Your task to perform on an android device: see sites visited before in the chrome app Image 0: 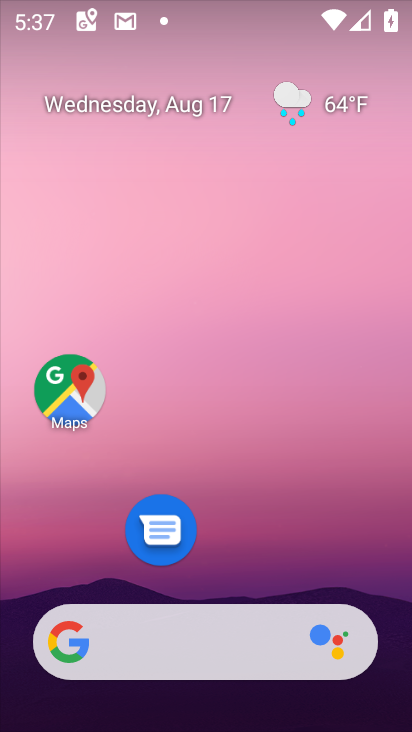
Step 0: drag from (226, 540) to (263, 123)
Your task to perform on an android device: see sites visited before in the chrome app Image 1: 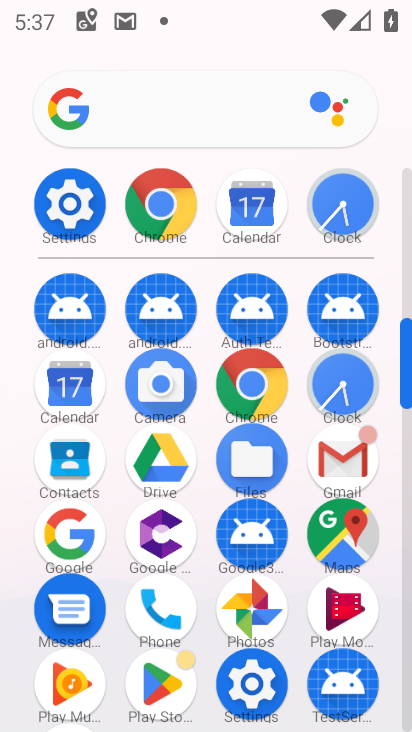
Step 1: click (160, 201)
Your task to perform on an android device: see sites visited before in the chrome app Image 2: 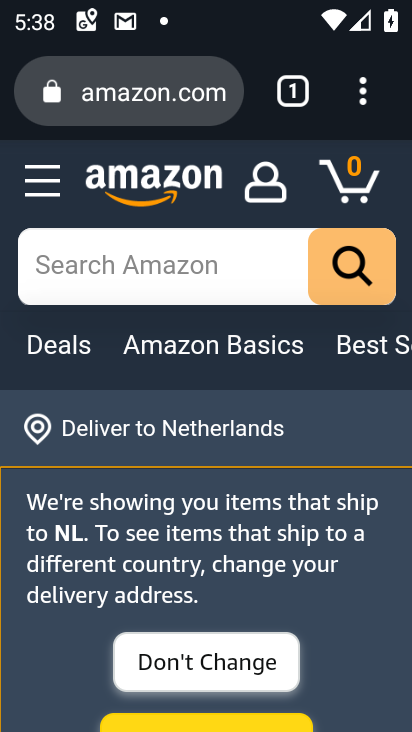
Step 2: click (365, 90)
Your task to perform on an android device: see sites visited before in the chrome app Image 3: 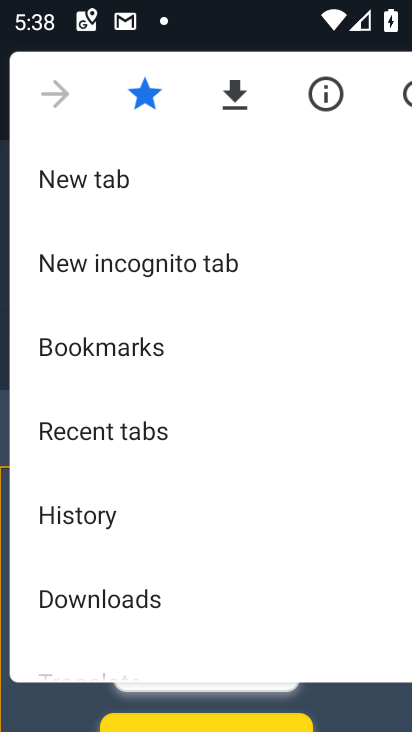
Step 3: click (79, 529)
Your task to perform on an android device: see sites visited before in the chrome app Image 4: 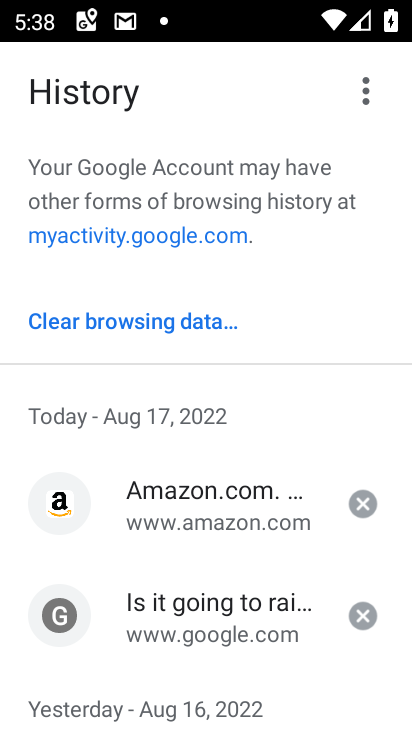
Step 4: task complete